Your task to perform on an android device: turn on bluetooth scan Image 0: 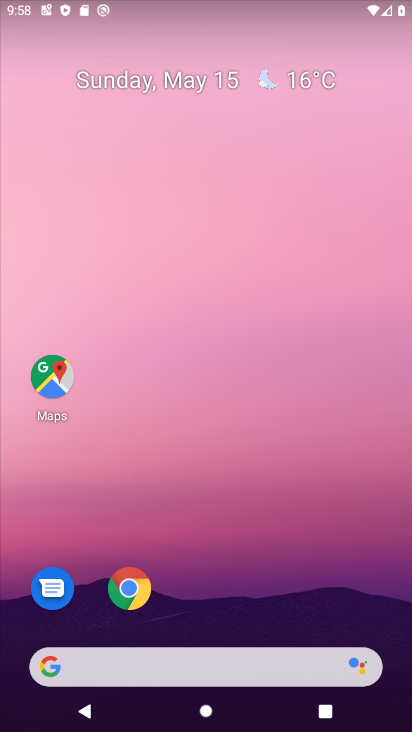
Step 0: drag from (203, 526) to (248, 55)
Your task to perform on an android device: turn on bluetooth scan Image 1: 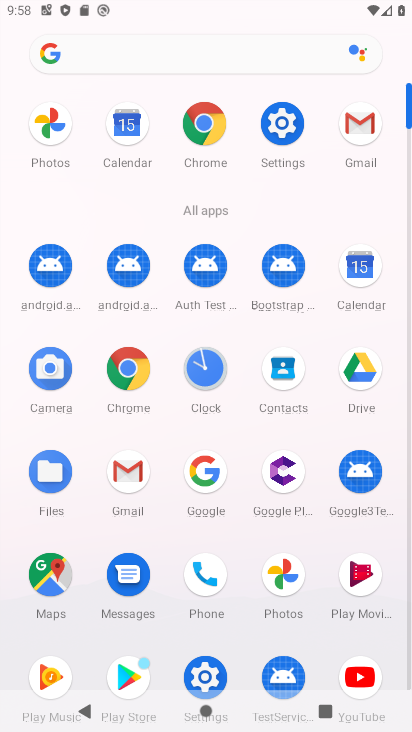
Step 1: click (272, 139)
Your task to perform on an android device: turn on bluetooth scan Image 2: 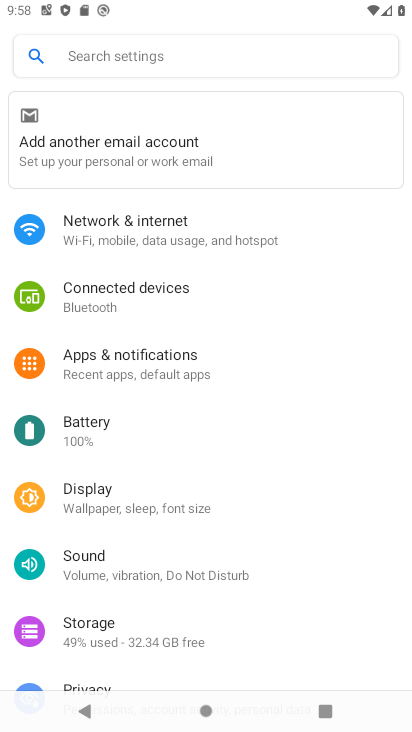
Step 2: click (152, 285)
Your task to perform on an android device: turn on bluetooth scan Image 3: 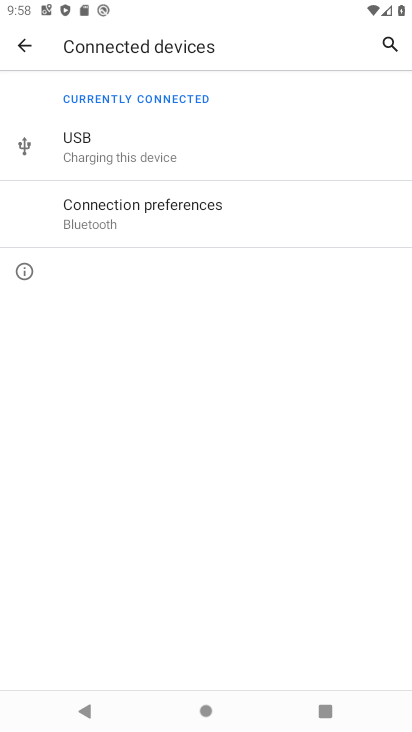
Step 3: click (178, 214)
Your task to perform on an android device: turn on bluetooth scan Image 4: 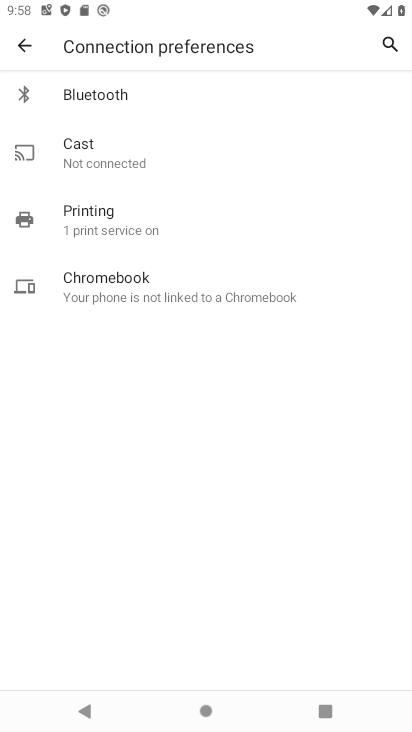
Step 4: click (146, 91)
Your task to perform on an android device: turn on bluetooth scan Image 5: 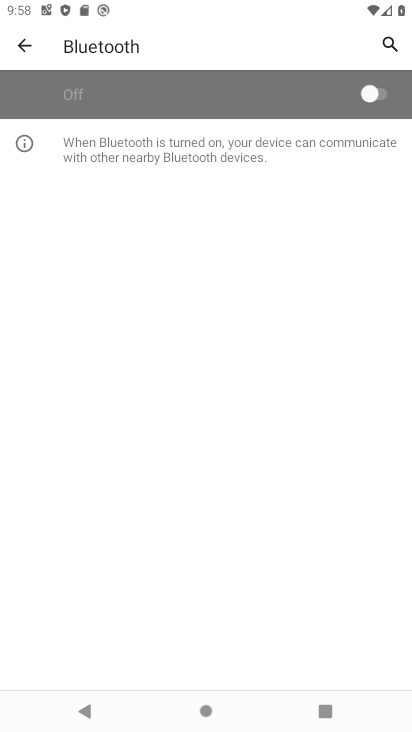
Step 5: click (374, 93)
Your task to perform on an android device: turn on bluetooth scan Image 6: 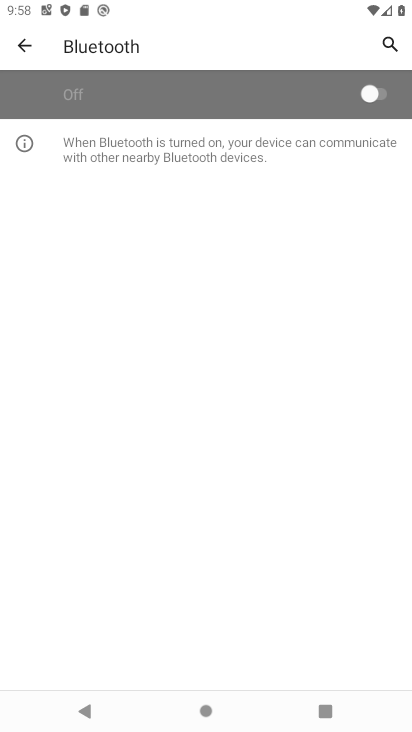
Step 6: click (374, 93)
Your task to perform on an android device: turn on bluetooth scan Image 7: 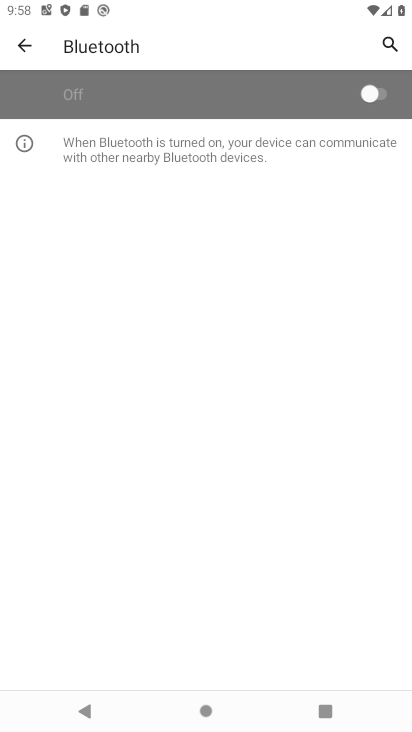
Step 7: click (374, 93)
Your task to perform on an android device: turn on bluetooth scan Image 8: 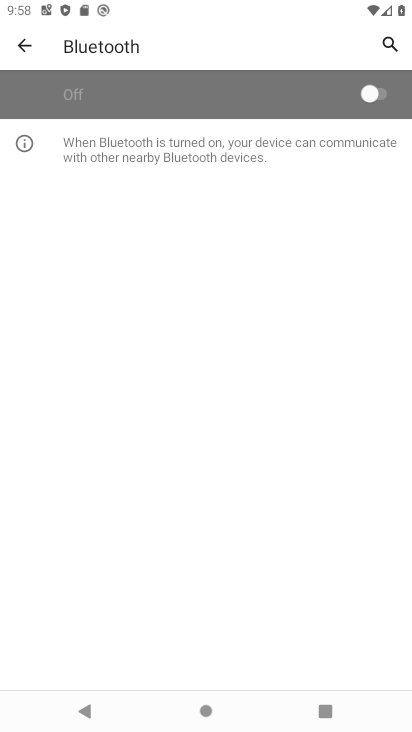
Step 8: click (374, 93)
Your task to perform on an android device: turn on bluetooth scan Image 9: 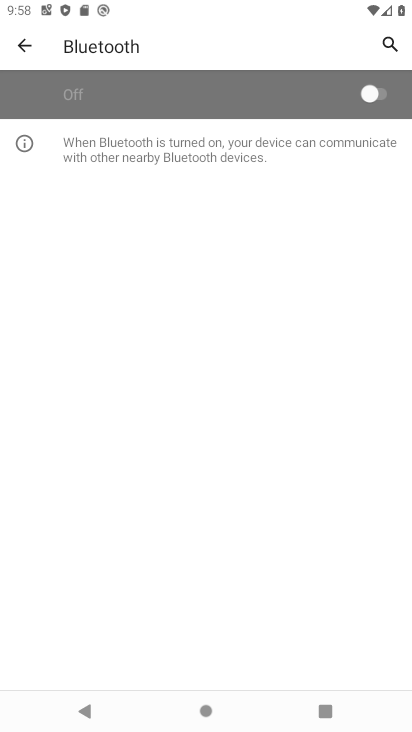
Step 9: click (374, 93)
Your task to perform on an android device: turn on bluetooth scan Image 10: 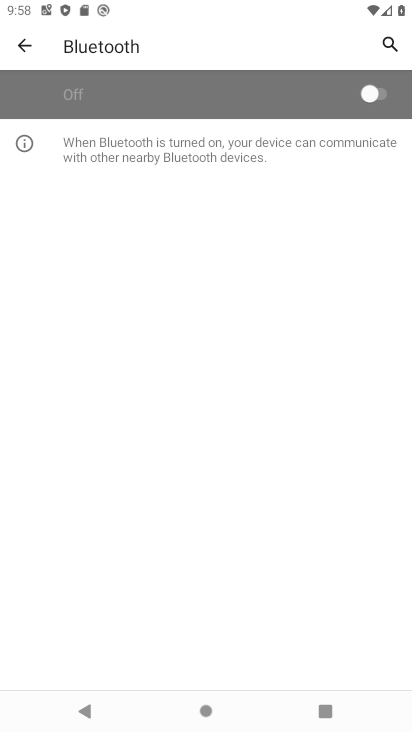
Step 10: task complete